Your task to perform on an android device: turn off javascript in the chrome app Image 0: 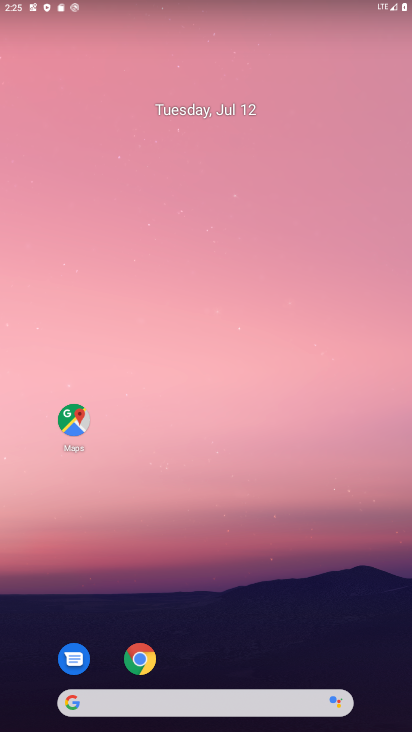
Step 0: click (138, 664)
Your task to perform on an android device: turn off javascript in the chrome app Image 1: 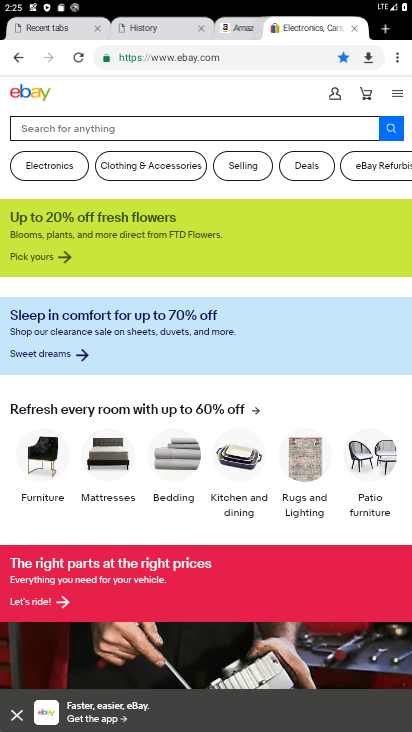
Step 1: click (397, 57)
Your task to perform on an android device: turn off javascript in the chrome app Image 2: 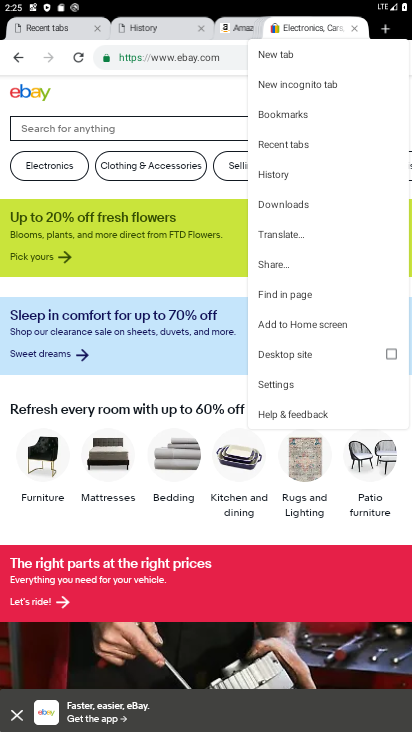
Step 2: click (275, 383)
Your task to perform on an android device: turn off javascript in the chrome app Image 3: 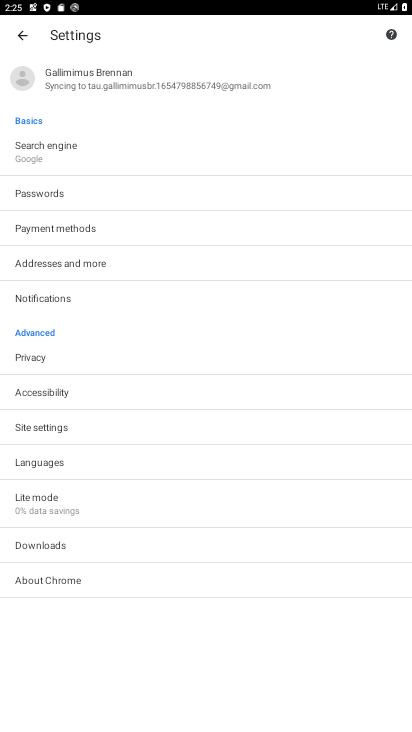
Step 3: click (42, 428)
Your task to perform on an android device: turn off javascript in the chrome app Image 4: 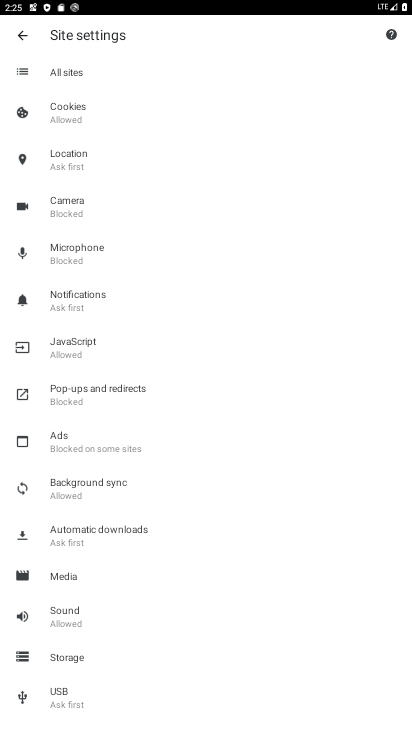
Step 4: click (72, 339)
Your task to perform on an android device: turn off javascript in the chrome app Image 5: 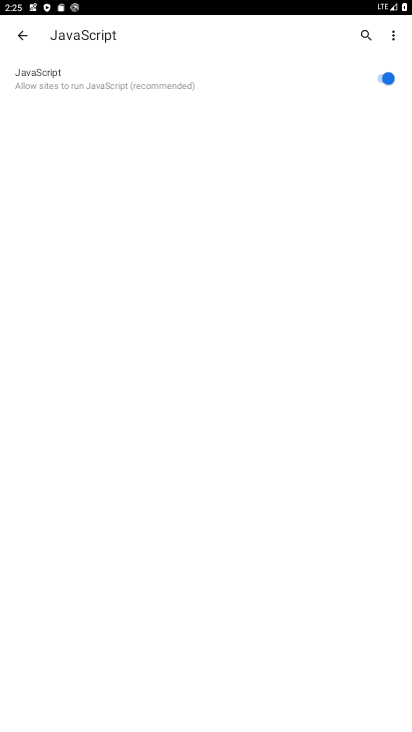
Step 5: click (380, 77)
Your task to perform on an android device: turn off javascript in the chrome app Image 6: 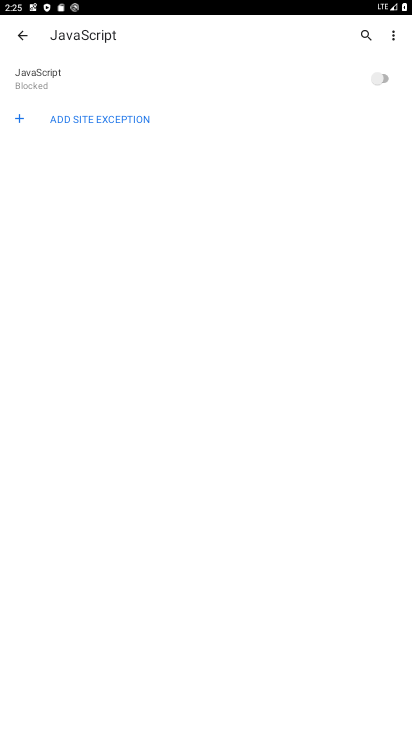
Step 6: task complete